Your task to perform on an android device: change the clock display to analog Image 0: 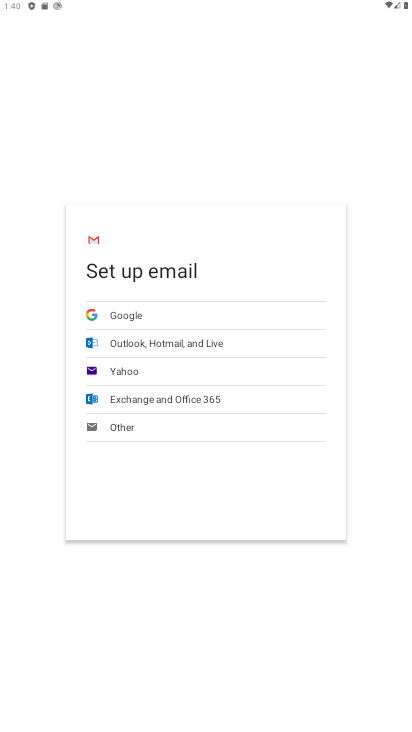
Step 0: press home button
Your task to perform on an android device: change the clock display to analog Image 1: 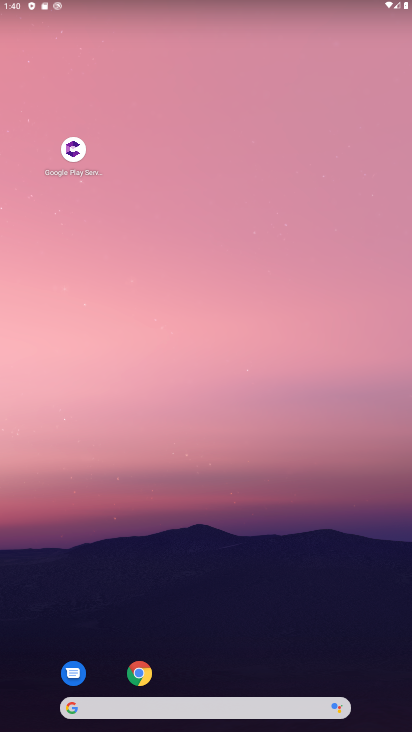
Step 1: drag from (228, 596) to (202, 190)
Your task to perform on an android device: change the clock display to analog Image 2: 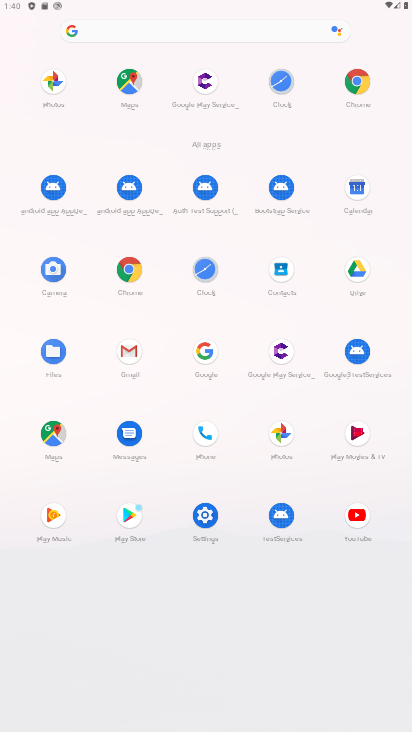
Step 2: click (206, 269)
Your task to perform on an android device: change the clock display to analog Image 3: 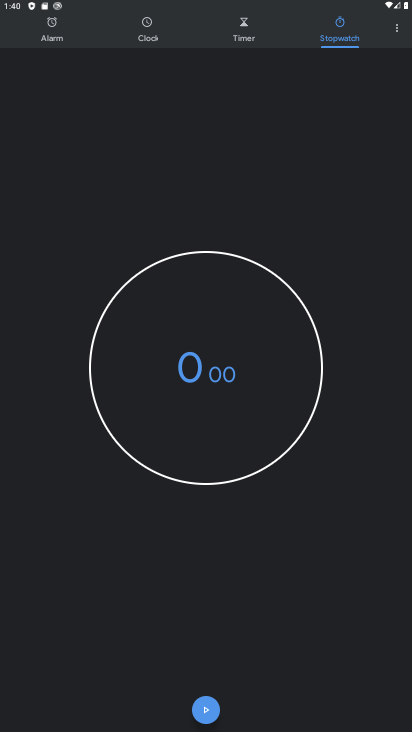
Step 3: click (397, 27)
Your task to perform on an android device: change the clock display to analog Image 4: 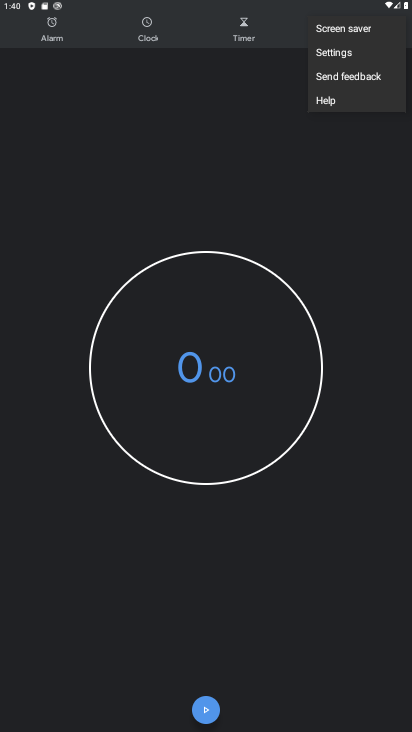
Step 4: click (349, 53)
Your task to perform on an android device: change the clock display to analog Image 5: 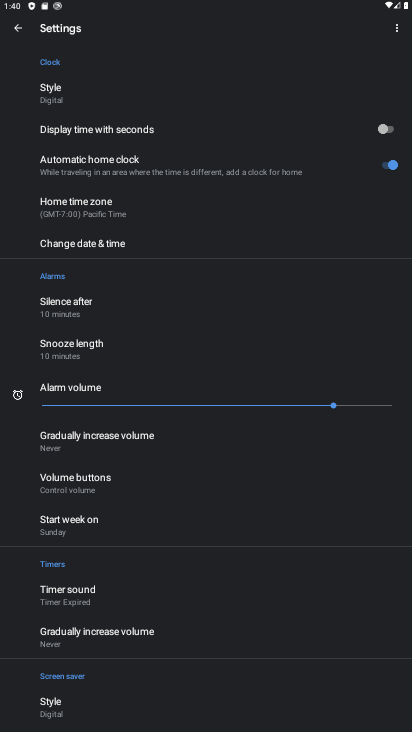
Step 5: click (56, 82)
Your task to perform on an android device: change the clock display to analog Image 6: 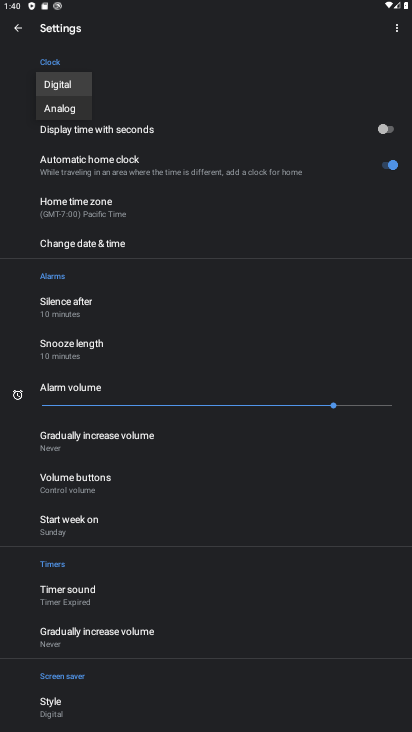
Step 6: click (76, 112)
Your task to perform on an android device: change the clock display to analog Image 7: 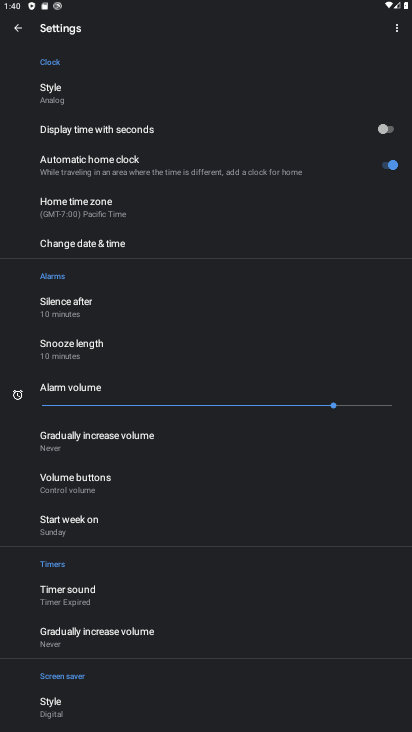
Step 7: task complete